Your task to perform on an android device: Open sound settings Image 0: 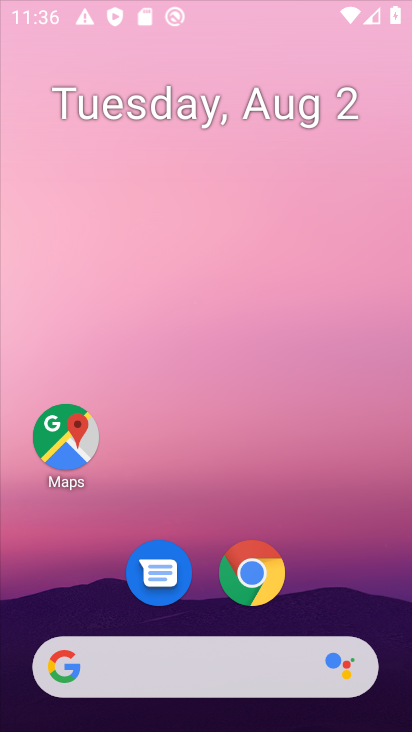
Step 0: click (251, 153)
Your task to perform on an android device: Open sound settings Image 1: 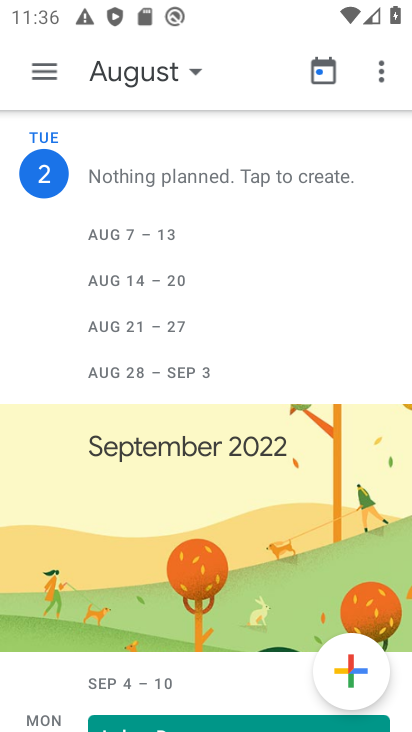
Step 1: press home button
Your task to perform on an android device: Open sound settings Image 2: 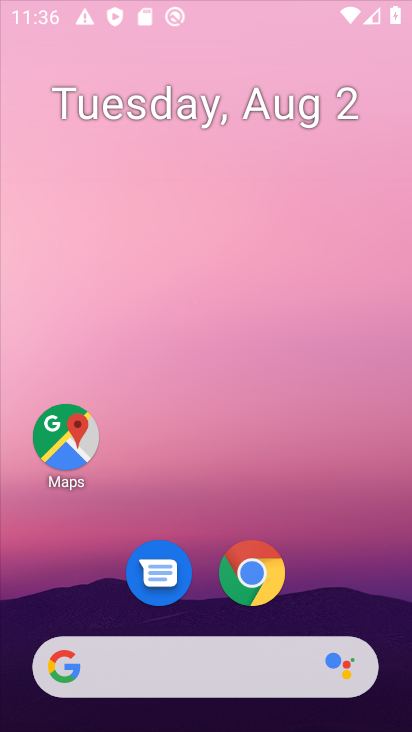
Step 2: drag from (277, 674) to (316, 35)
Your task to perform on an android device: Open sound settings Image 3: 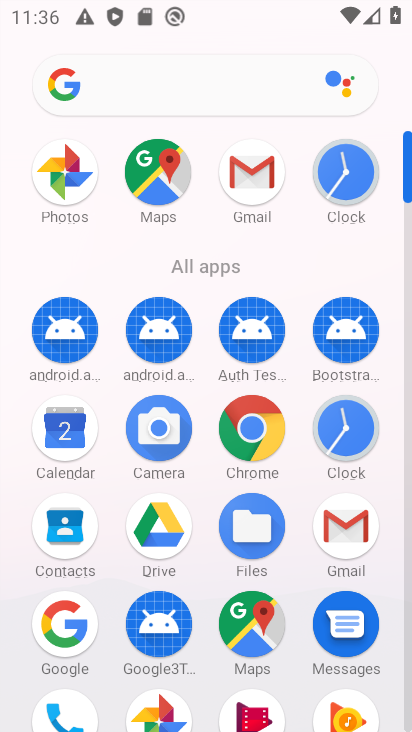
Step 3: drag from (210, 562) to (272, 140)
Your task to perform on an android device: Open sound settings Image 4: 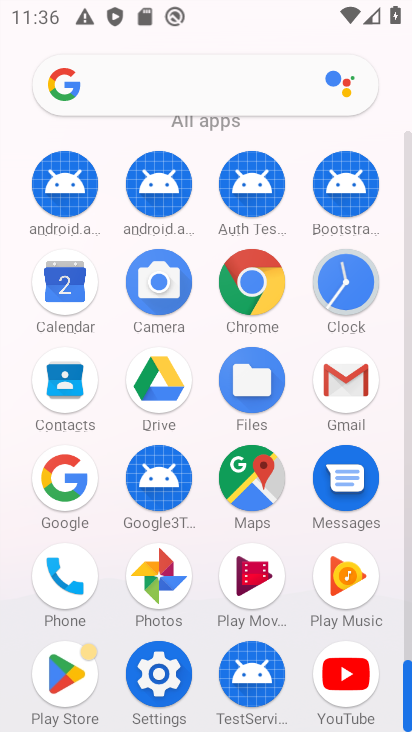
Step 4: click (164, 702)
Your task to perform on an android device: Open sound settings Image 5: 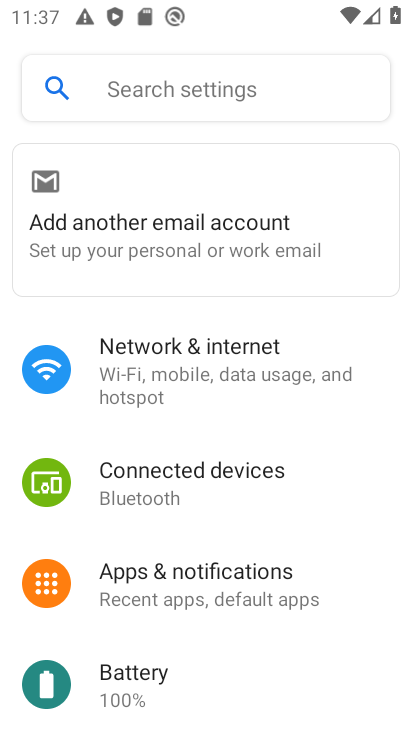
Step 5: drag from (206, 590) to (292, 214)
Your task to perform on an android device: Open sound settings Image 6: 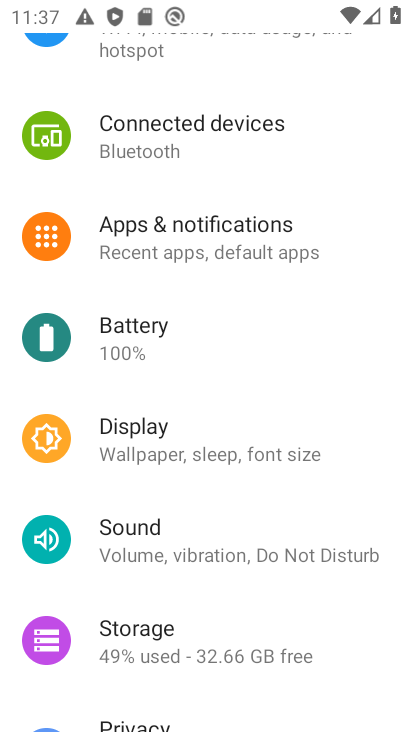
Step 6: click (185, 537)
Your task to perform on an android device: Open sound settings Image 7: 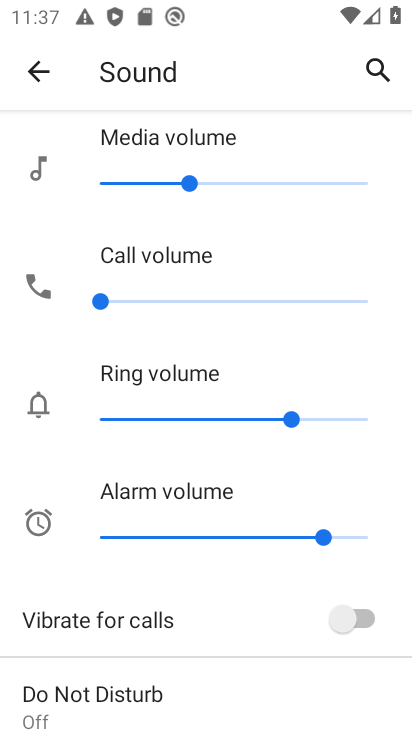
Step 7: task complete